Your task to perform on an android device: Search for "logitech g910" on walmart, select the first entry, add it to the cart, then select checkout. Image 0: 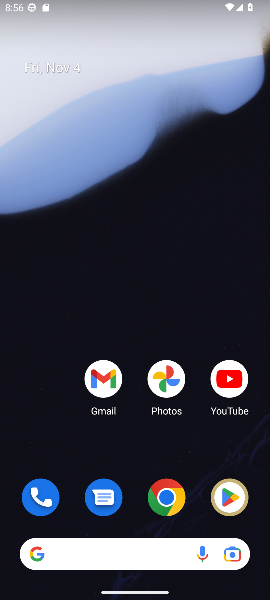
Step 0: click (177, 502)
Your task to perform on an android device: Search for "logitech g910" on walmart, select the first entry, add it to the cart, then select checkout. Image 1: 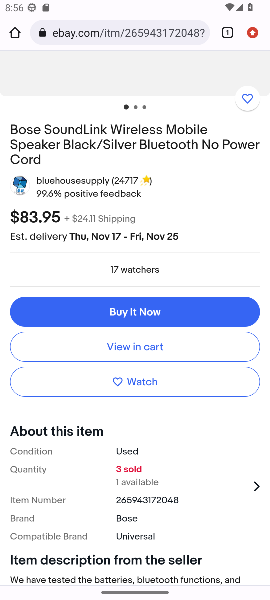
Step 1: click (136, 30)
Your task to perform on an android device: Search for "logitech g910" on walmart, select the first entry, add it to the cart, then select checkout. Image 2: 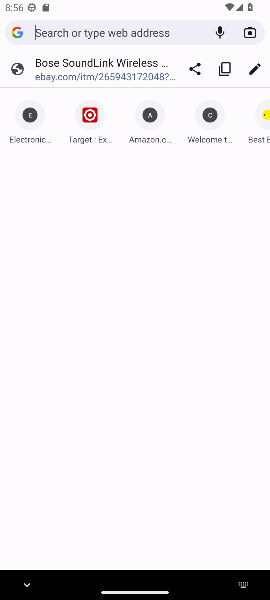
Step 2: type "walmart.com"
Your task to perform on an android device: Search for "logitech g910" on walmart, select the first entry, add it to the cart, then select checkout. Image 3: 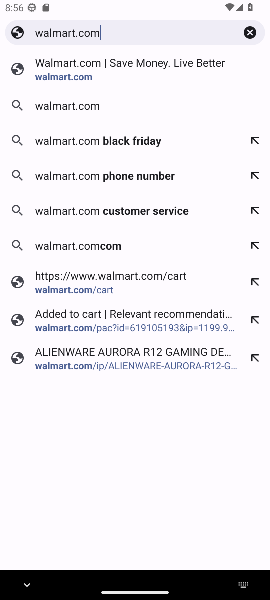
Step 3: click (71, 82)
Your task to perform on an android device: Search for "logitech g910" on walmart, select the first entry, add it to the cart, then select checkout. Image 4: 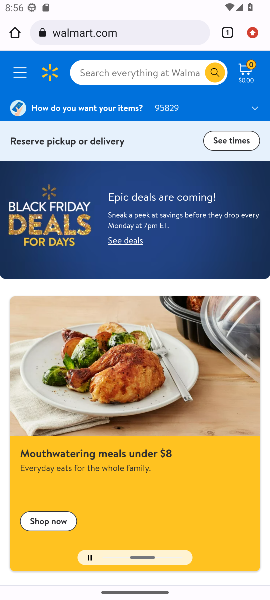
Step 4: click (141, 70)
Your task to perform on an android device: Search for "logitech g910" on walmart, select the first entry, add it to the cart, then select checkout. Image 5: 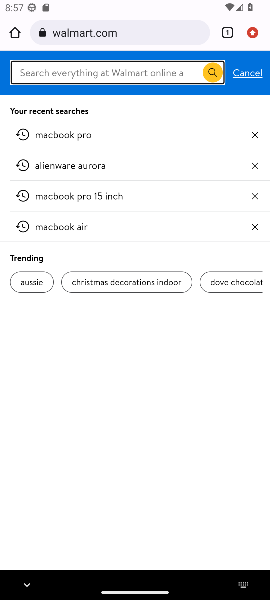
Step 5: type "logitech g910"
Your task to perform on an android device: Search for "logitech g910" on walmart, select the first entry, add it to the cart, then select checkout. Image 6: 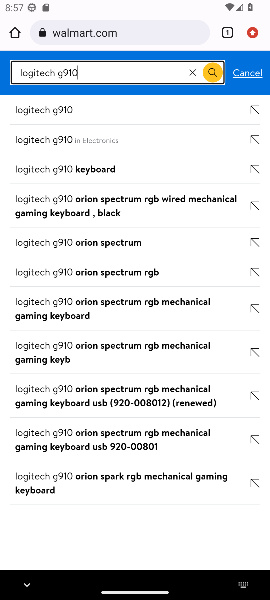
Step 6: click (49, 118)
Your task to perform on an android device: Search for "logitech g910" on walmart, select the first entry, add it to the cart, then select checkout. Image 7: 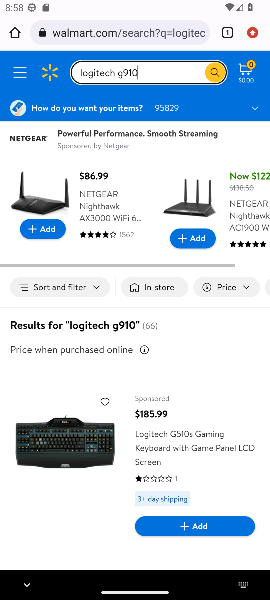
Step 7: drag from (174, 453) to (179, 284)
Your task to perform on an android device: Search for "logitech g910" on walmart, select the first entry, add it to the cart, then select checkout. Image 8: 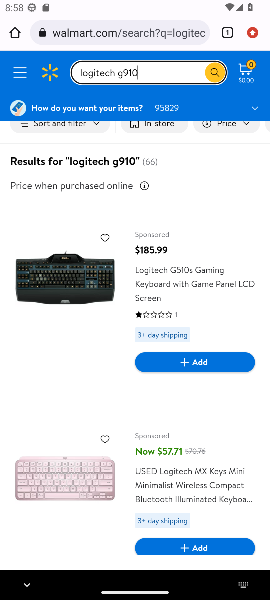
Step 8: click (120, 285)
Your task to perform on an android device: Search for "logitech g910" on walmart, select the first entry, add it to the cart, then select checkout. Image 9: 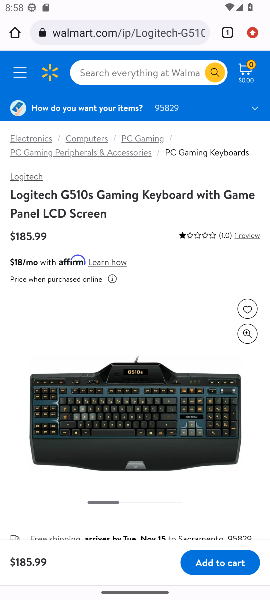
Step 9: press back button
Your task to perform on an android device: Search for "logitech g910" on walmart, select the first entry, add it to the cart, then select checkout. Image 10: 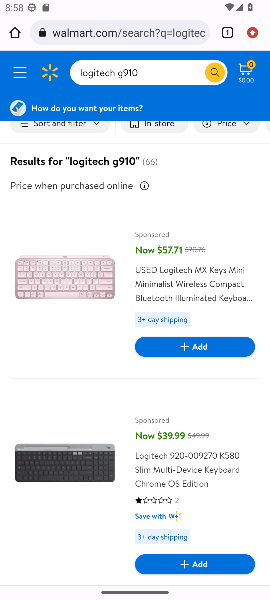
Step 10: drag from (158, 475) to (146, 238)
Your task to perform on an android device: Search for "logitech g910" on walmart, select the first entry, add it to the cart, then select checkout. Image 11: 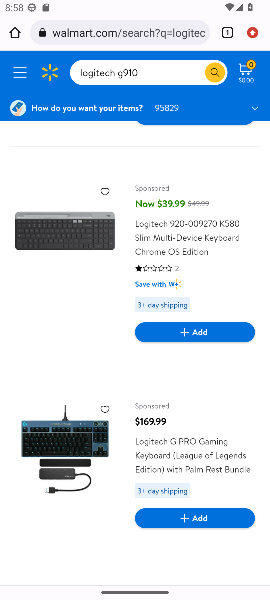
Step 11: drag from (168, 424) to (173, 148)
Your task to perform on an android device: Search for "logitech g910" on walmart, select the first entry, add it to the cart, then select checkout. Image 12: 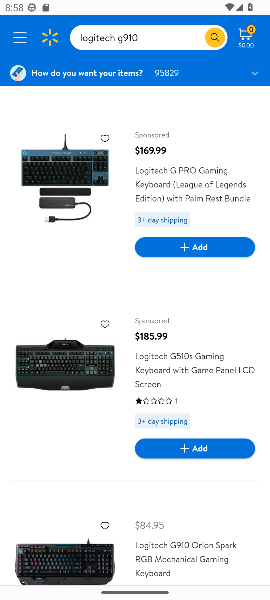
Step 12: drag from (165, 368) to (159, 225)
Your task to perform on an android device: Search for "logitech g910" on walmart, select the first entry, add it to the cart, then select checkout. Image 13: 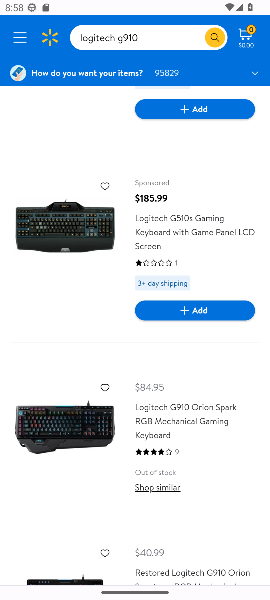
Step 13: click (160, 430)
Your task to perform on an android device: Search for "logitech g910" on walmart, select the first entry, add it to the cart, then select checkout. Image 14: 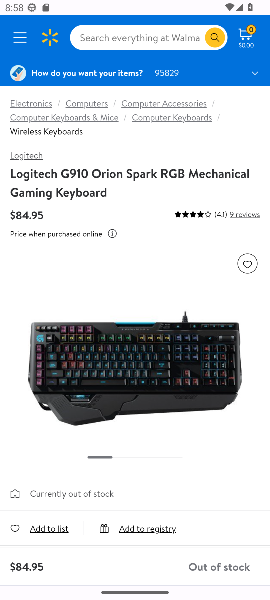
Step 14: task complete